Your task to perform on an android device: turn off smart reply in the gmail app Image 0: 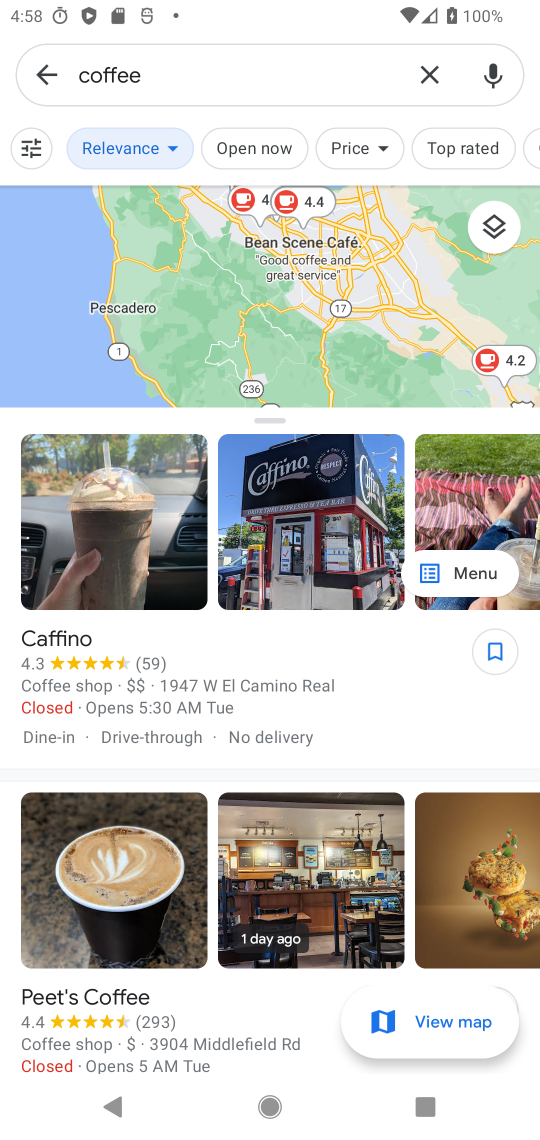
Step 0: press home button
Your task to perform on an android device: turn off smart reply in the gmail app Image 1: 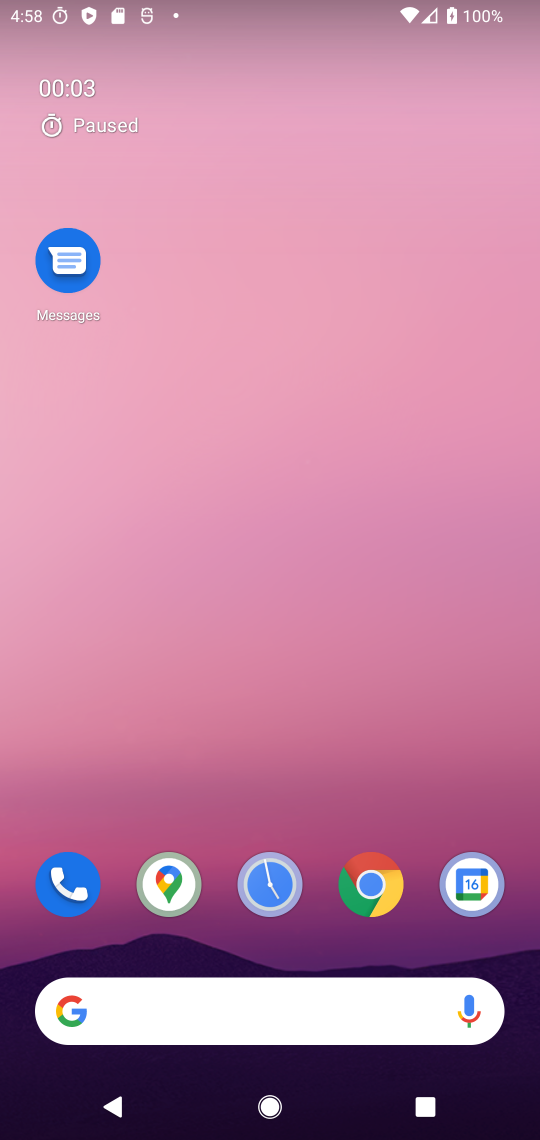
Step 1: drag from (31, 1097) to (326, 280)
Your task to perform on an android device: turn off smart reply in the gmail app Image 2: 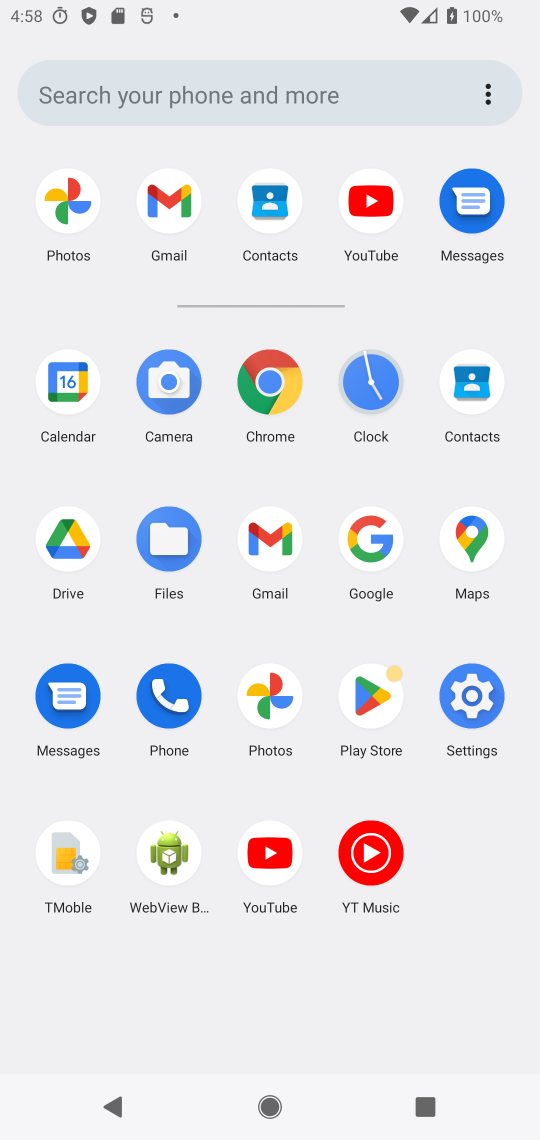
Step 2: click (262, 552)
Your task to perform on an android device: turn off smart reply in the gmail app Image 3: 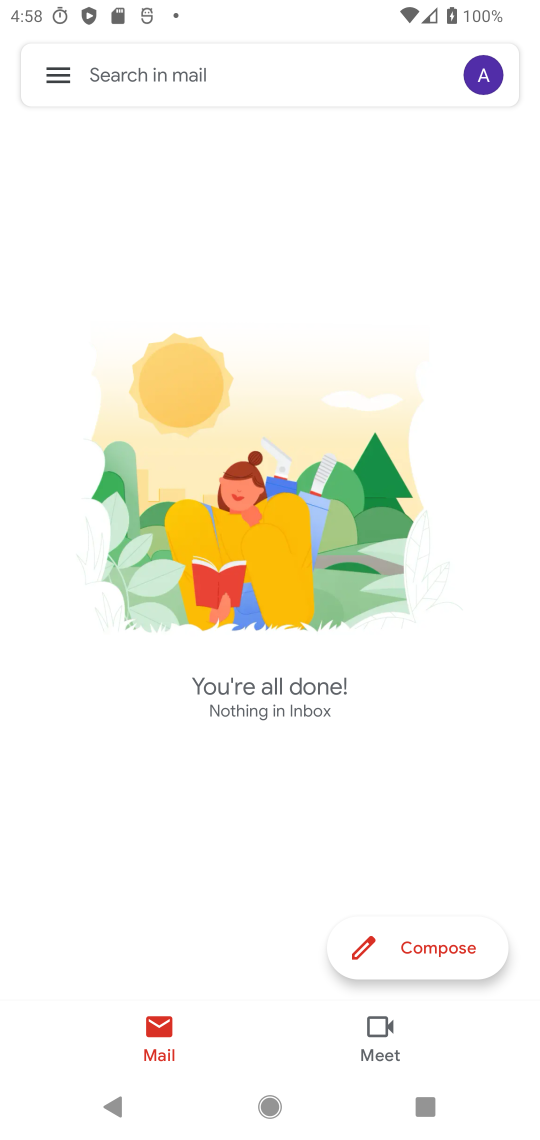
Step 3: click (61, 65)
Your task to perform on an android device: turn off smart reply in the gmail app Image 4: 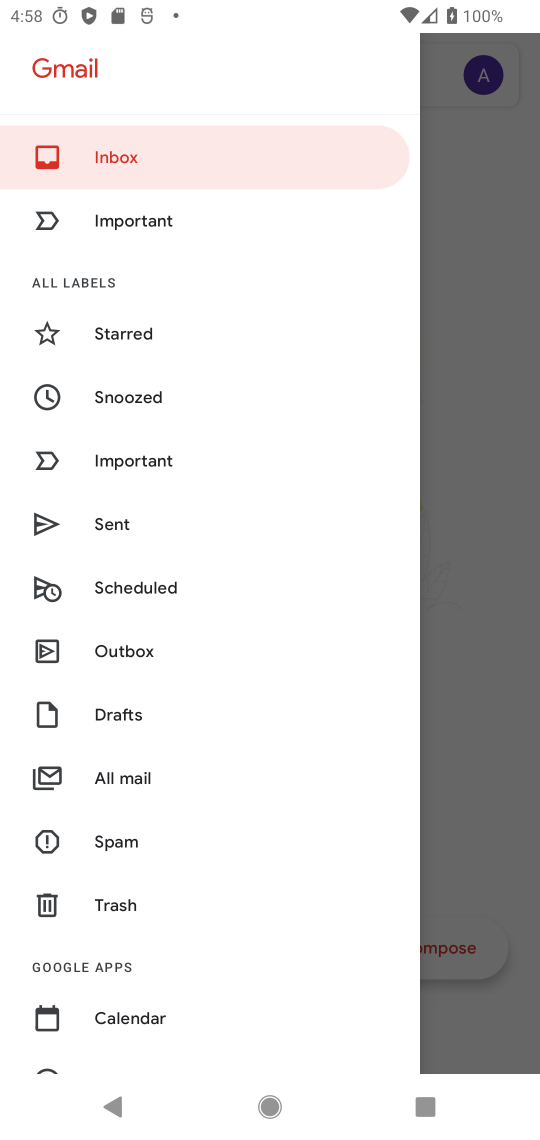
Step 4: drag from (264, 987) to (420, 384)
Your task to perform on an android device: turn off smart reply in the gmail app Image 5: 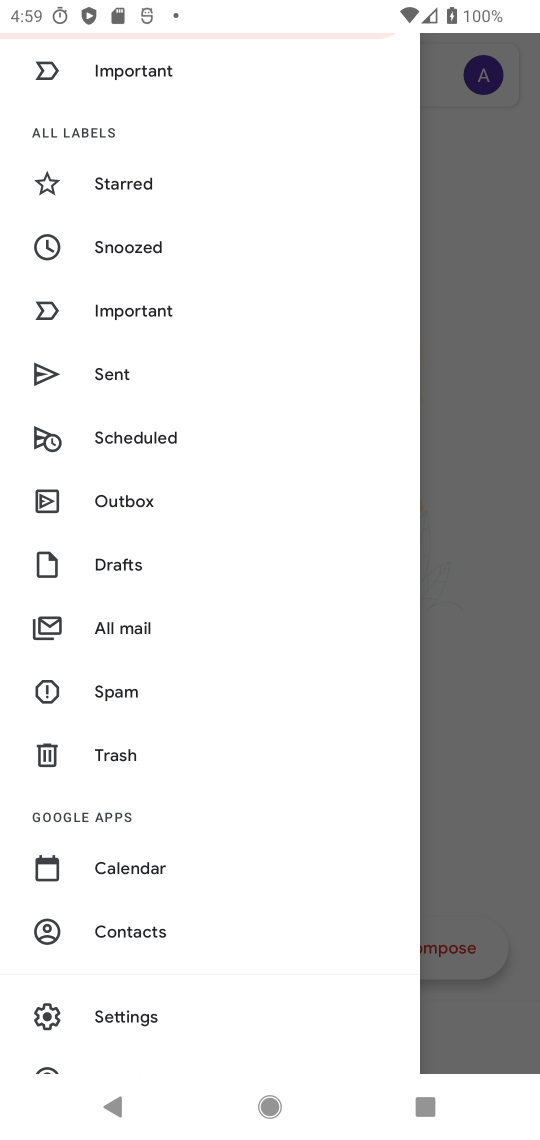
Step 5: click (116, 1013)
Your task to perform on an android device: turn off smart reply in the gmail app Image 6: 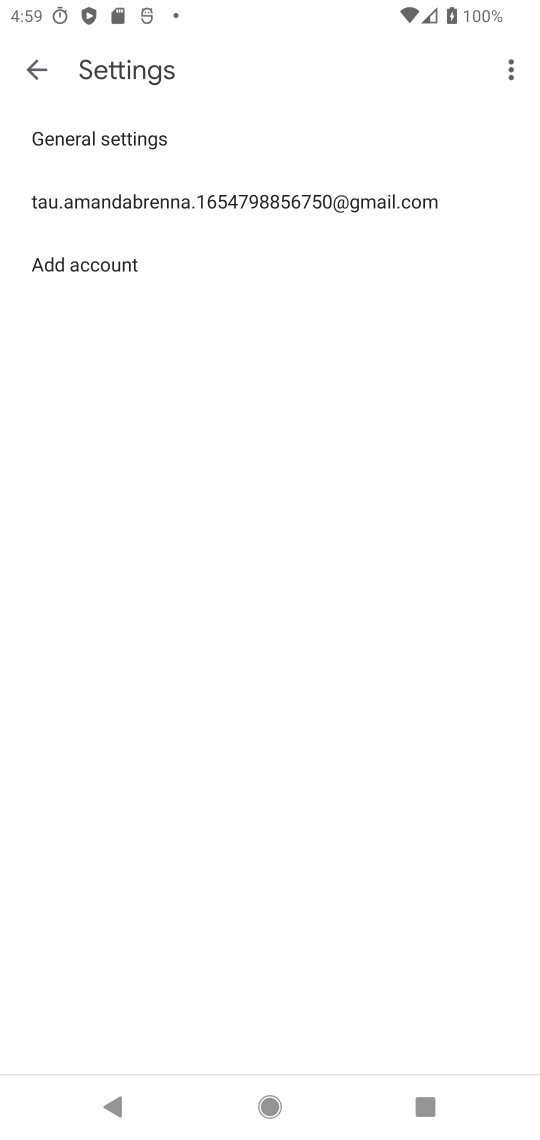
Step 6: click (251, 190)
Your task to perform on an android device: turn off smart reply in the gmail app Image 7: 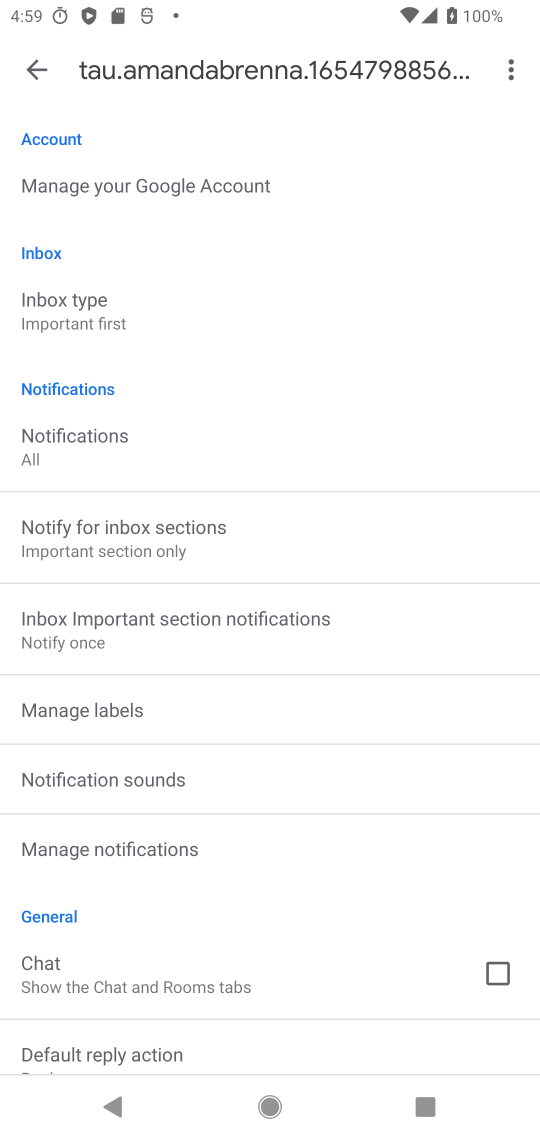
Step 7: drag from (323, 895) to (283, 354)
Your task to perform on an android device: turn off smart reply in the gmail app Image 8: 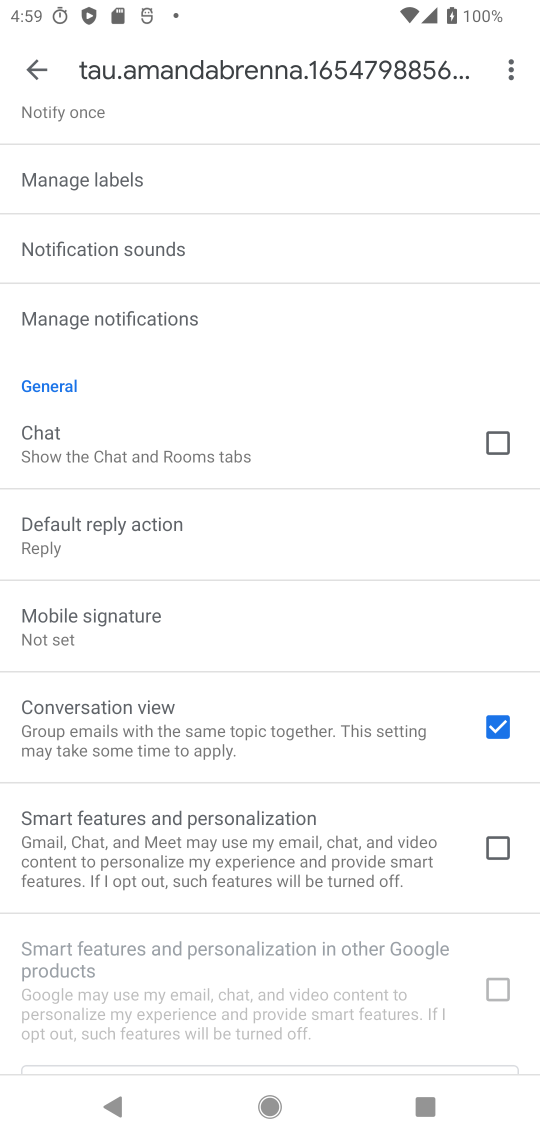
Step 8: click (87, 549)
Your task to perform on an android device: turn off smart reply in the gmail app Image 9: 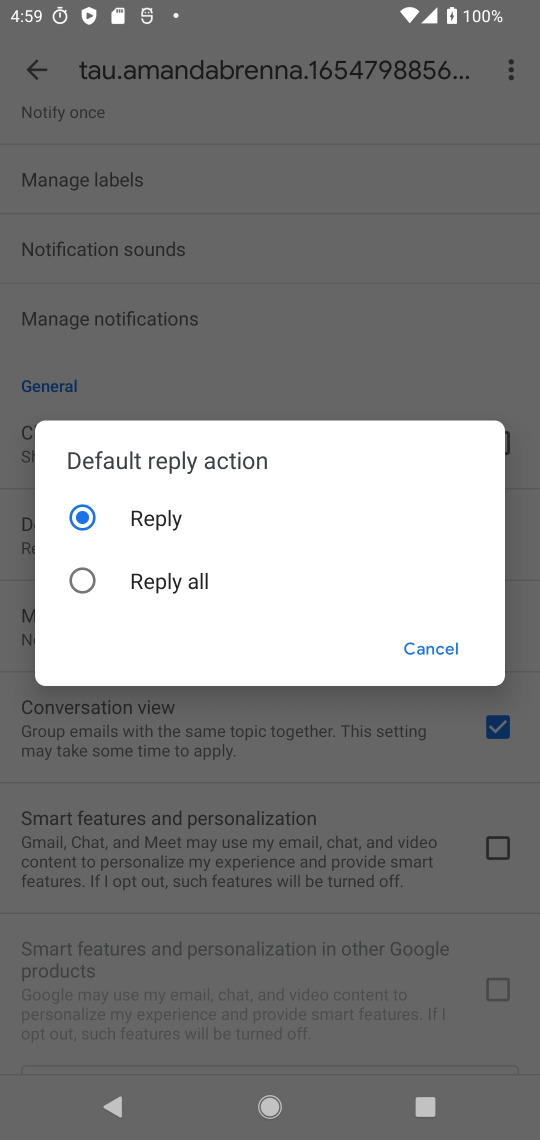
Step 9: click (314, 768)
Your task to perform on an android device: turn off smart reply in the gmail app Image 10: 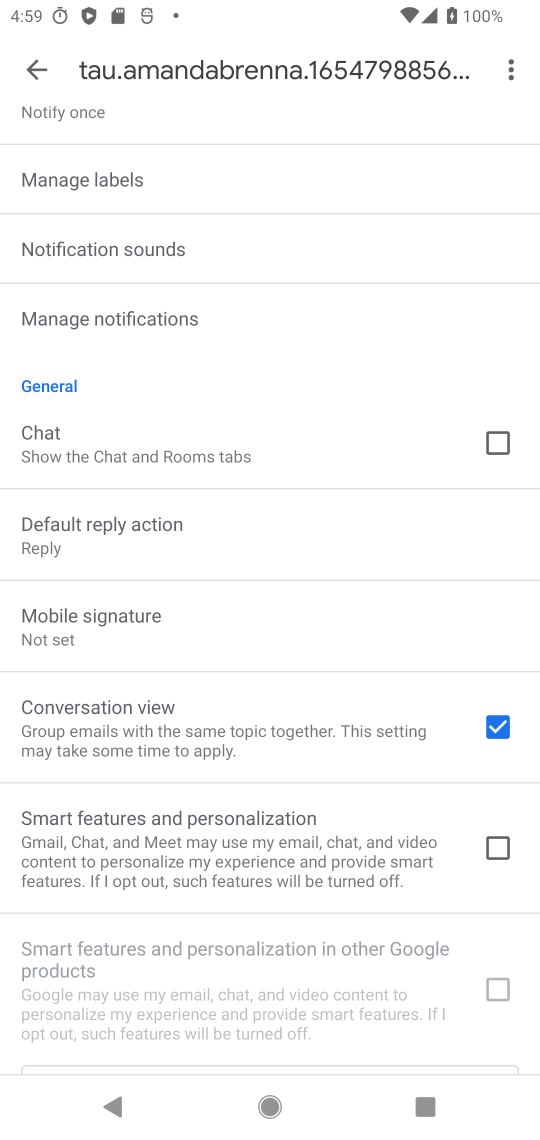
Step 10: task complete